Your task to perform on an android device: When is my next appointment? Image 0: 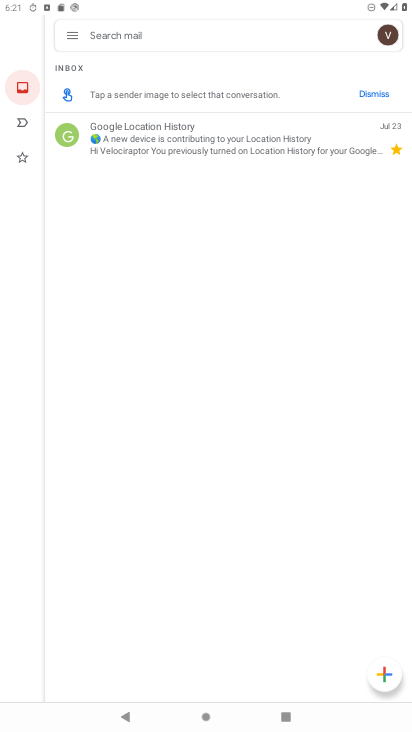
Step 0: press home button
Your task to perform on an android device: When is my next appointment? Image 1: 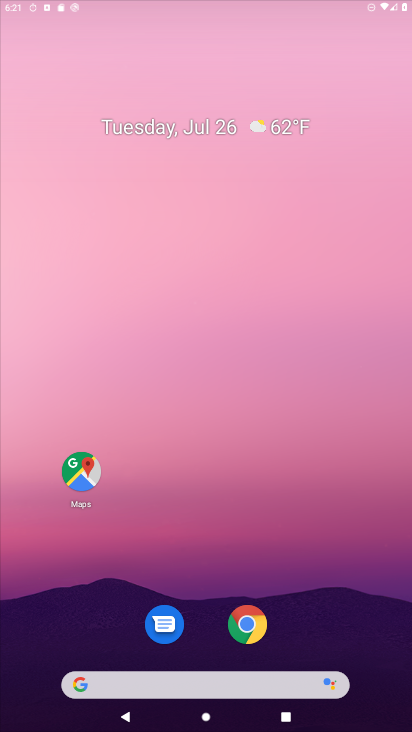
Step 1: drag from (248, 163) to (266, 36)
Your task to perform on an android device: When is my next appointment? Image 2: 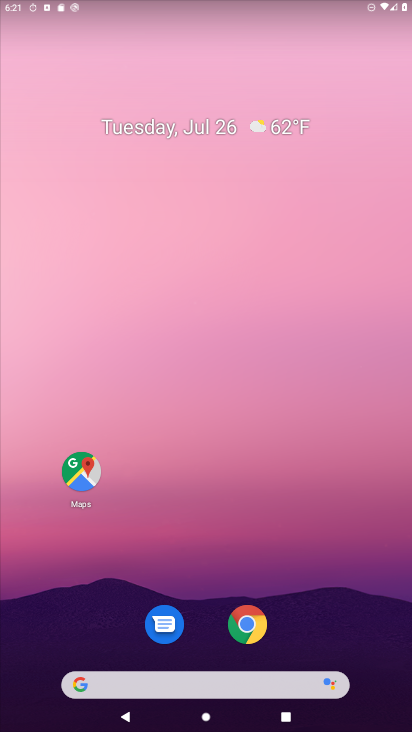
Step 2: drag from (240, 678) to (267, 46)
Your task to perform on an android device: When is my next appointment? Image 3: 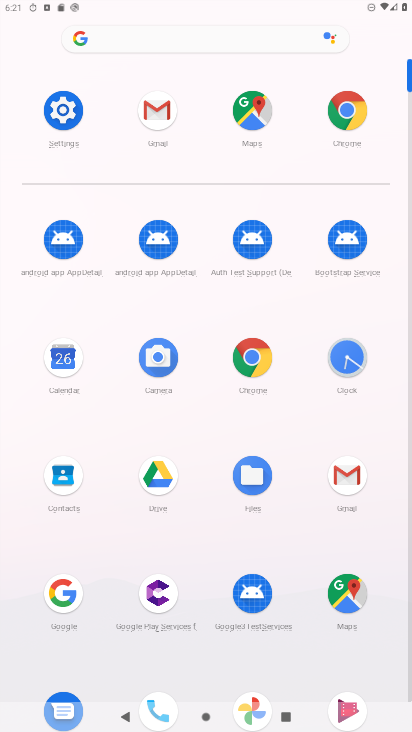
Step 3: click (72, 363)
Your task to perform on an android device: When is my next appointment? Image 4: 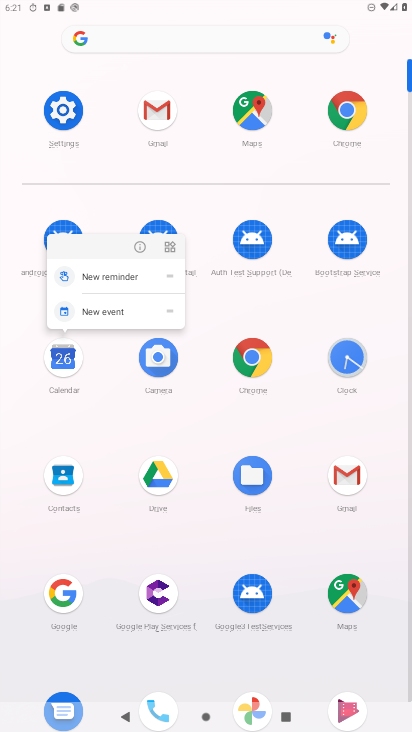
Step 4: click (50, 361)
Your task to perform on an android device: When is my next appointment? Image 5: 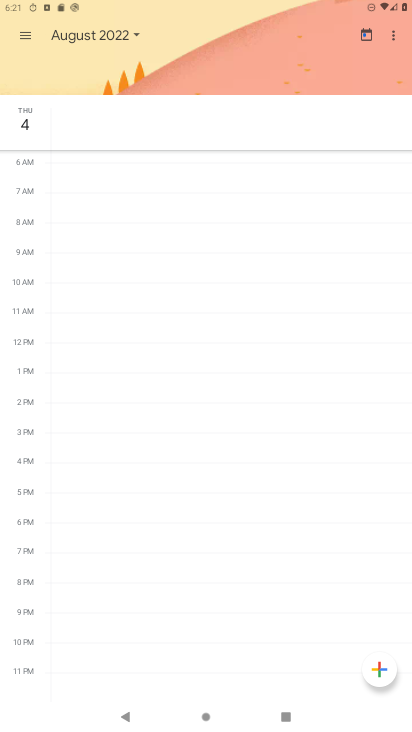
Step 5: click (124, 31)
Your task to perform on an android device: When is my next appointment? Image 6: 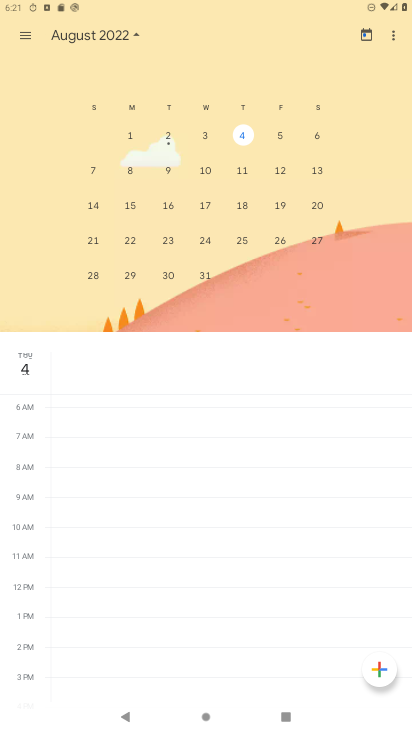
Step 6: drag from (45, 212) to (385, 248)
Your task to perform on an android device: When is my next appointment? Image 7: 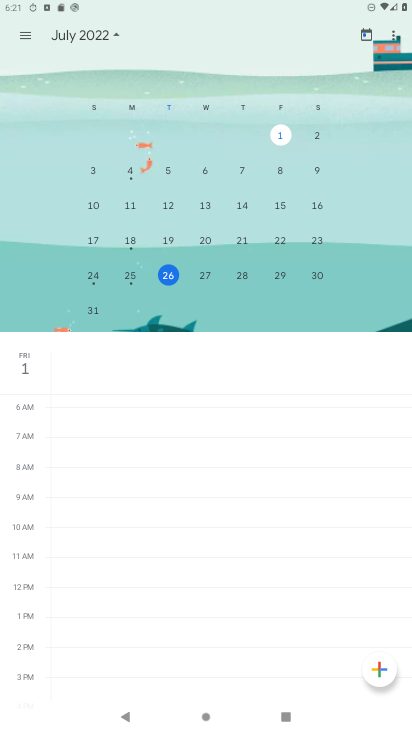
Step 7: click (201, 272)
Your task to perform on an android device: When is my next appointment? Image 8: 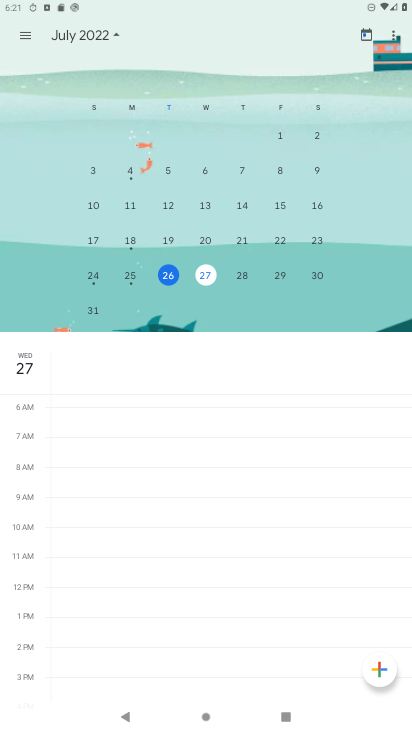
Step 8: task complete